Your task to perform on an android device: Go to location settings Image 0: 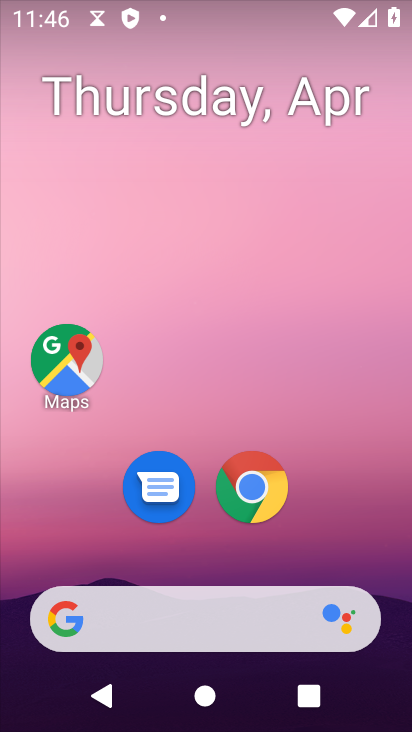
Step 0: drag from (319, 542) to (336, 231)
Your task to perform on an android device: Go to location settings Image 1: 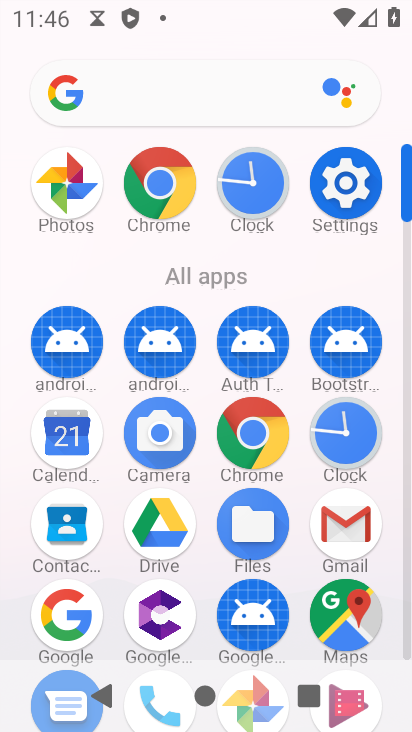
Step 1: click (344, 185)
Your task to perform on an android device: Go to location settings Image 2: 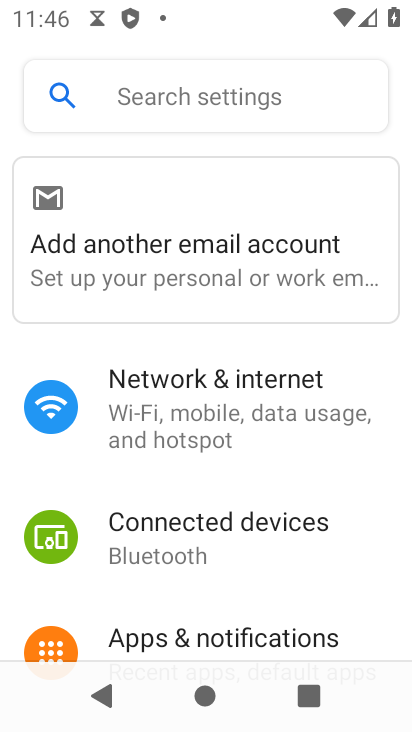
Step 2: drag from (184, 612) to (273, 94)
Your task to perform on an android device: Go to location settings Image 3: 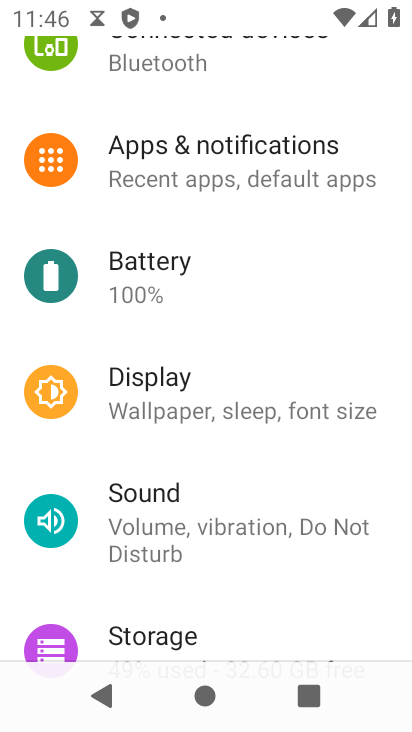
Step 3: drag from (175, 603) to (322, 117)
Your task to perform on an android device: Go to location settings Image 4: 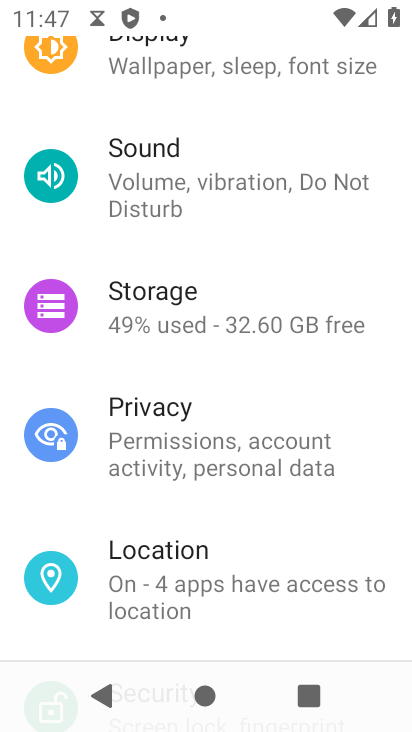
Step 4: click (188, 589)
Your task to perform on an android device: Go to location settings Image 5: 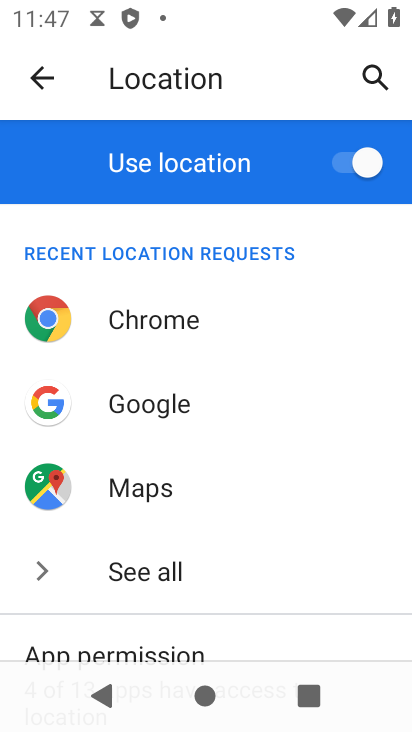
Step 5: task complete